Your task to perform on an android device: Open Youtube and go to "Your channel" Image 0: 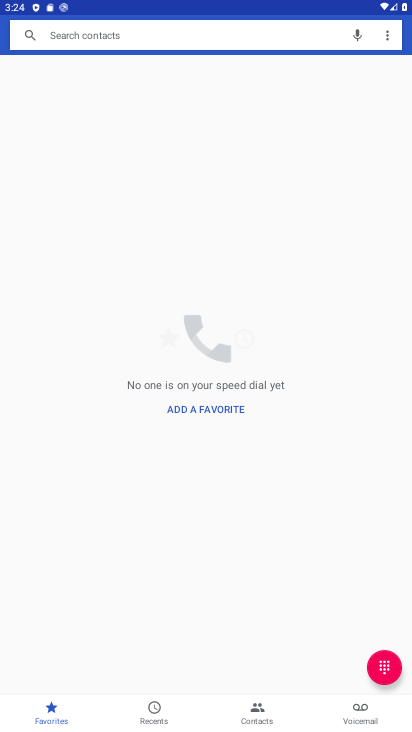
Step 0: press home button
Your task to perform on an android device: Open Youtube and go to "Your channel" Image 1: 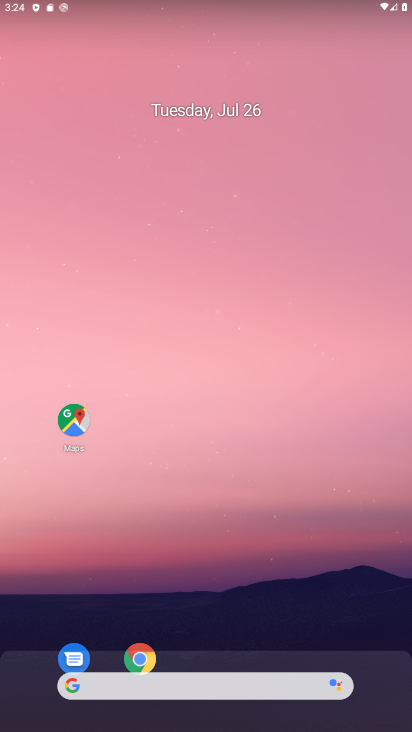
Step 1: click (294, 218)
Your task to perform on an android device: Open Youtube and go to "Your channel" Image 2: 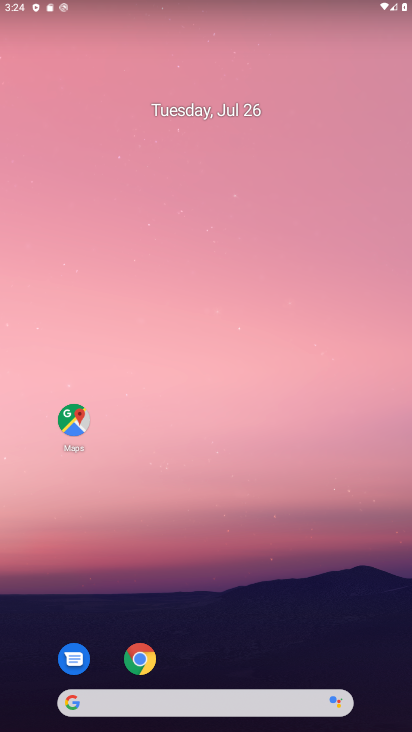
Step 2: drag from (252, 236) to (269, 8)
Your task to perform on an android device: Open Youtube and go to "Your channel" Image 3: 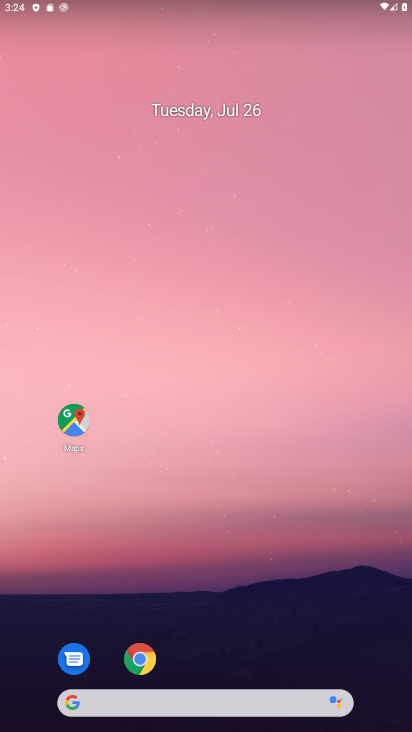
Step 3: drag from (306, 515) to (304, 42)
Your task to perform on an android device: Open Youtube and go to "Your channel" Image 4: 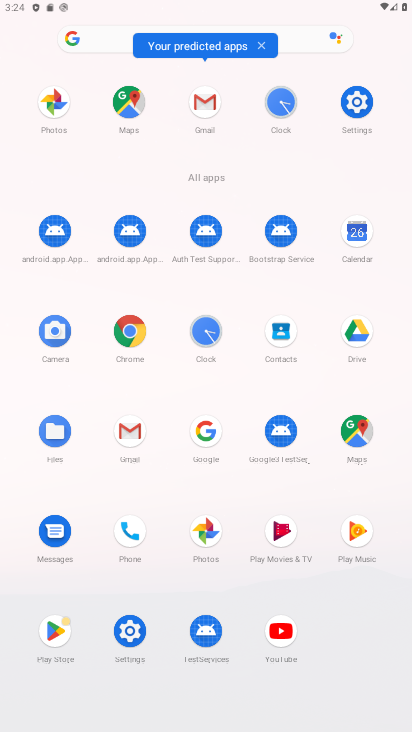
Step 4: click (289, 632)
Your task to perform on an android device: Open Youtube and go to "Your channel" Image 5: 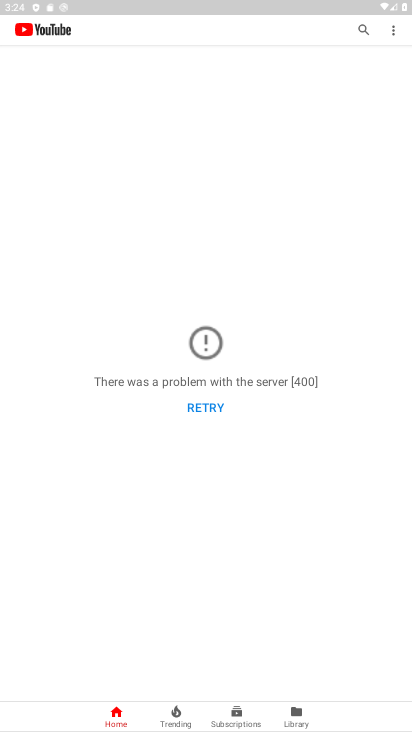
Step 5: click (209, 405)
Your task to perform on an android device: Open Youtube and go to "Your channel" Image 6: 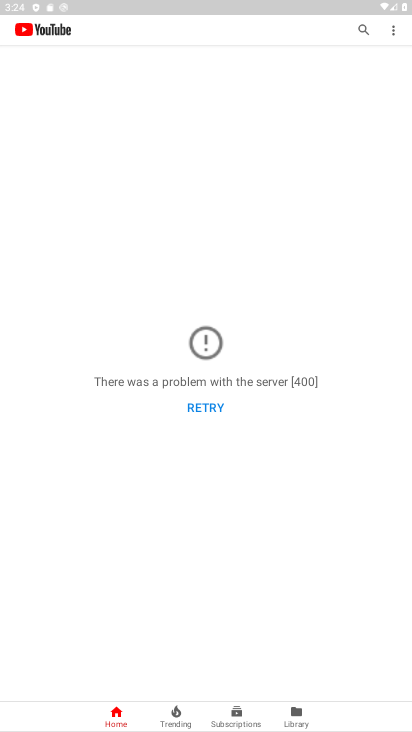
Step 6: task complete